Your task to perform on an android device: turn pop-ups on in chrome Image 0: 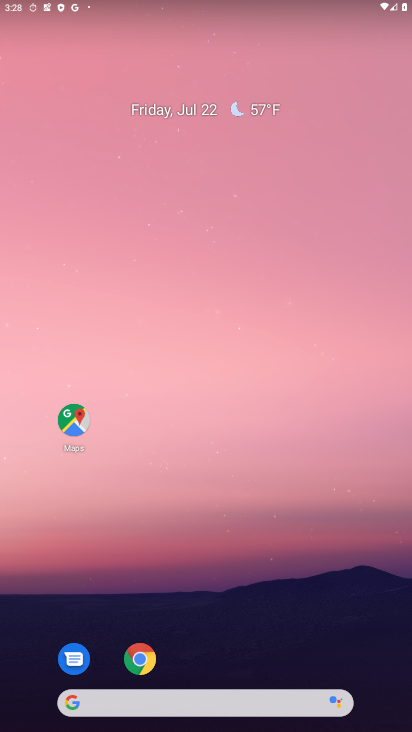
Step 0: click (140, 656)
Your task to perform on an android device: turn pop-ups on in chrome Image 1: 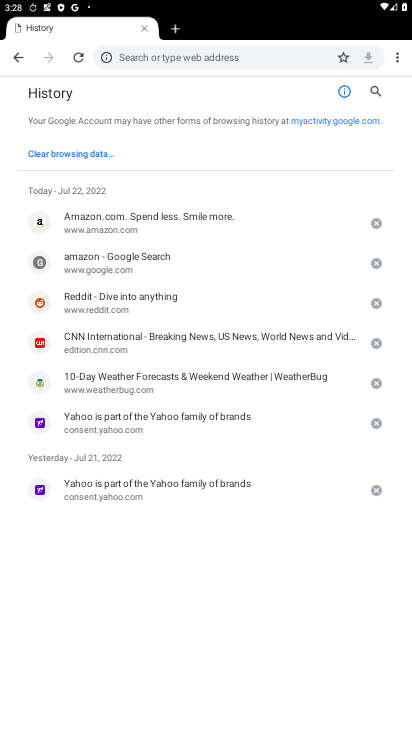
Step 1: click (400, 58)
Your task to perform on an android device: turn pop-ups on in chrome Image 2: 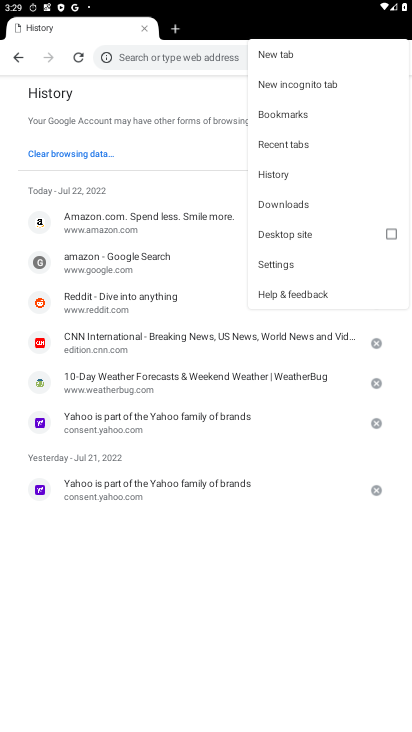
Step 2: click (346, 261)
Your task to perform on an android device: turn pop-ups on in chrome Image 3: 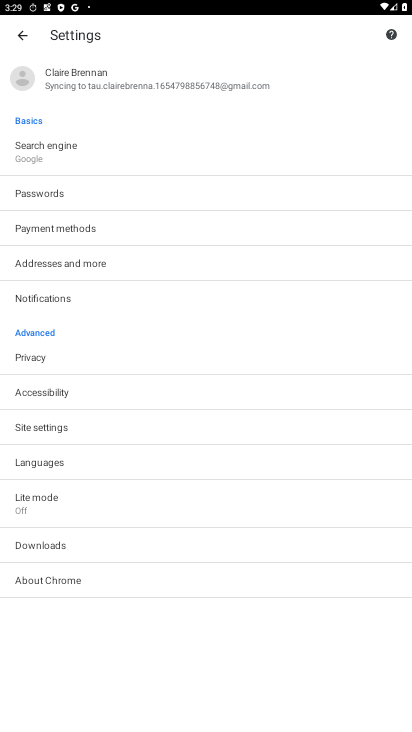
Step 3: click (47, 425)
Your task to perform on an android device: turn pop-ups on in chrome Image 4: 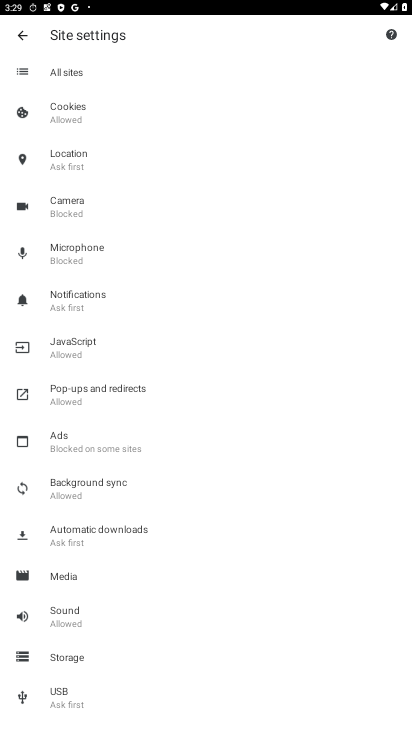
Step 4: click (101, 398)
Your task to perform on an android device: turn pop-ups on in chrome Image 5: 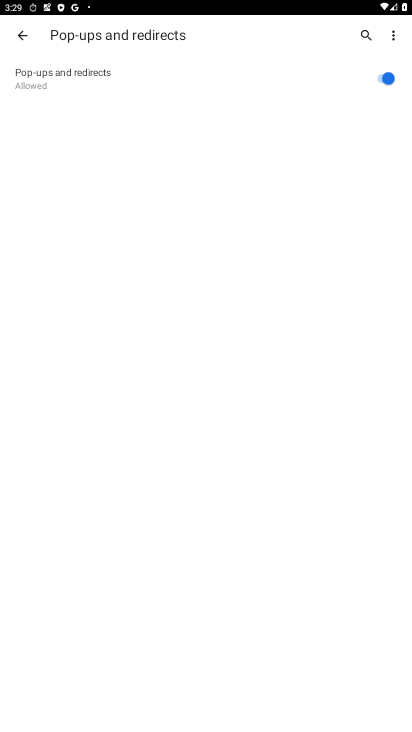
Step 5: task complete